Your task to perform on an android device: toggle data saver in the chrome app Image 0: 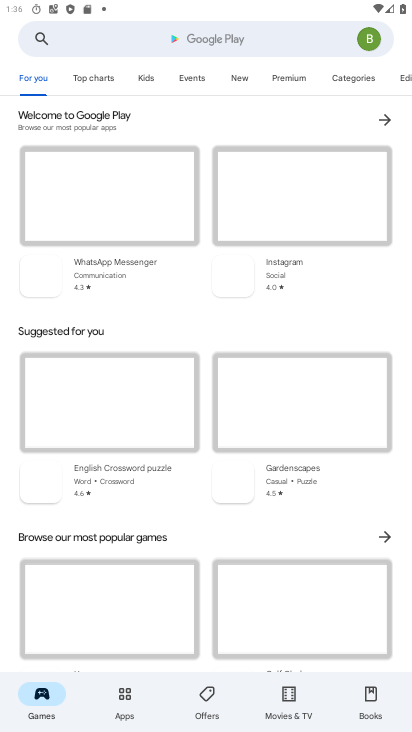
Step 0: press home button
Your task to perform on an android device: toggle data saver in the chrome app Image 1: 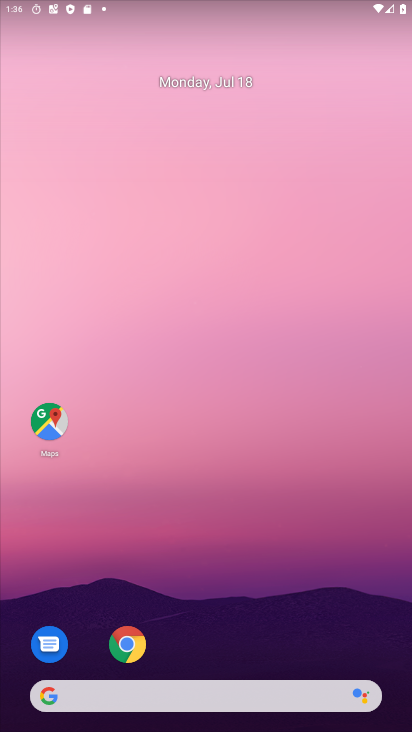
Step 1: click (123, 645)
Your task to perform on an android device: toggle data saver in the chrome app Image 2: 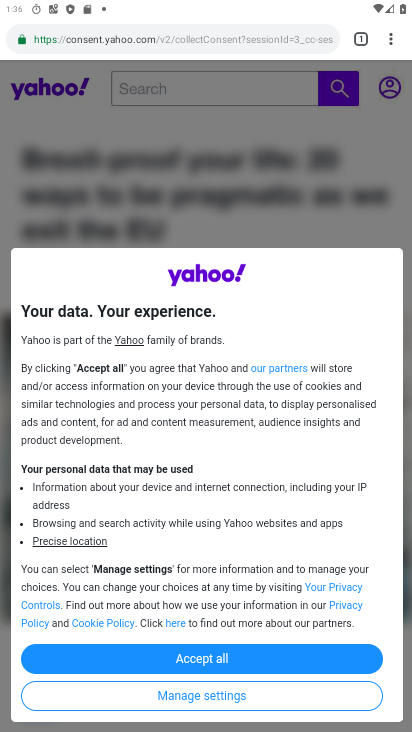
Step 2: click (386, 47)
Your task to perform on an android device: toggle data saver in the chrome app Image 3: 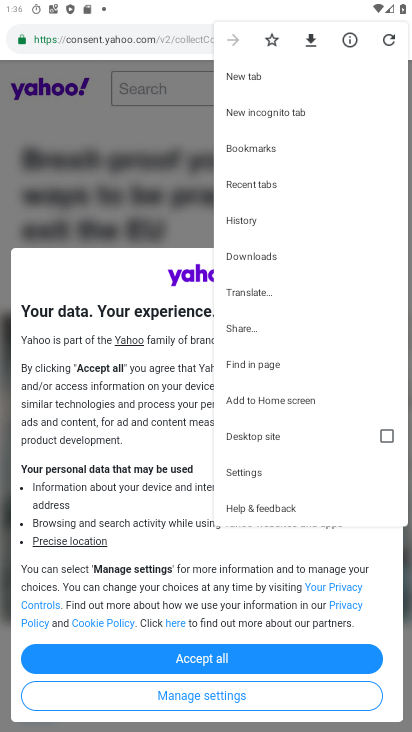
Step 3: click (243, 479)
Your task to perform on an android device: toggle data saver in the chrome app Image 4: 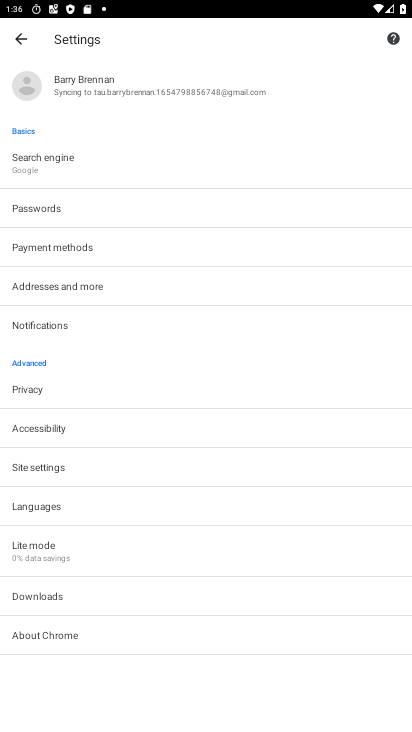
Step 4: click (73, 547)
Your task to perform on an android device: toggle data saver in the chrome app Image 5: 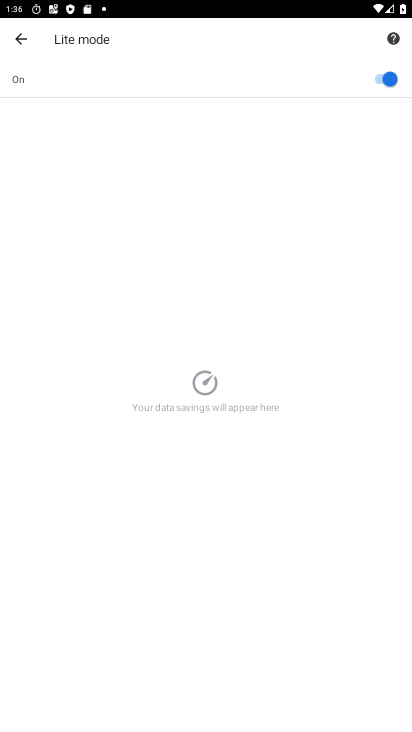
Step 5: click (389, 80)
Your task to perform on an android device: toggle data saver in the chrome app Image 6: 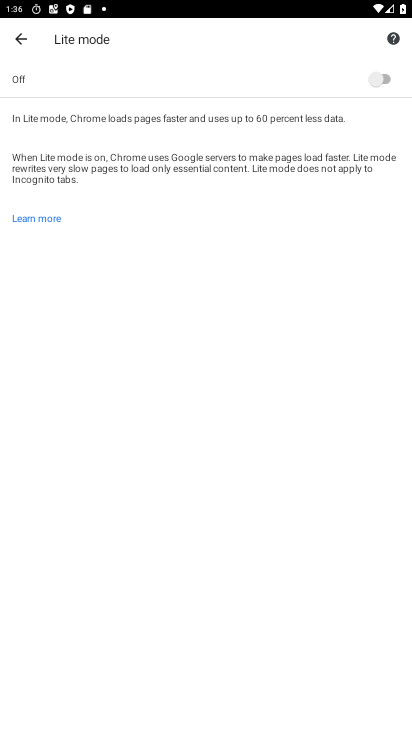
Step 6: task complete